Your task to perform on an android device: turn on notifications settings in the gmail app Image 0: 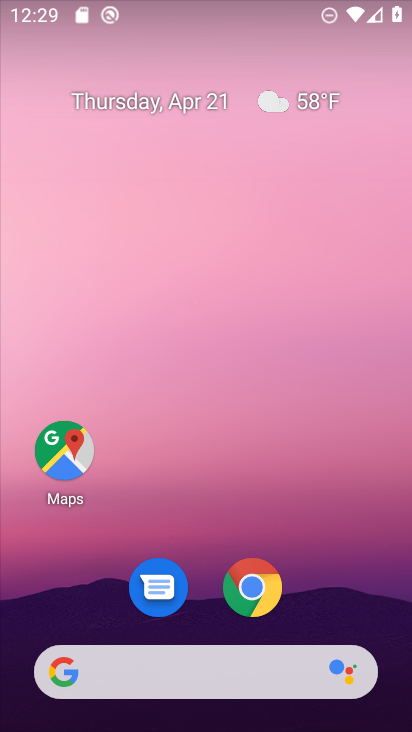
Step 0: click (258, 281)
Your task to perform on an android device: turn on notifications settings in the gmail app Image 1: 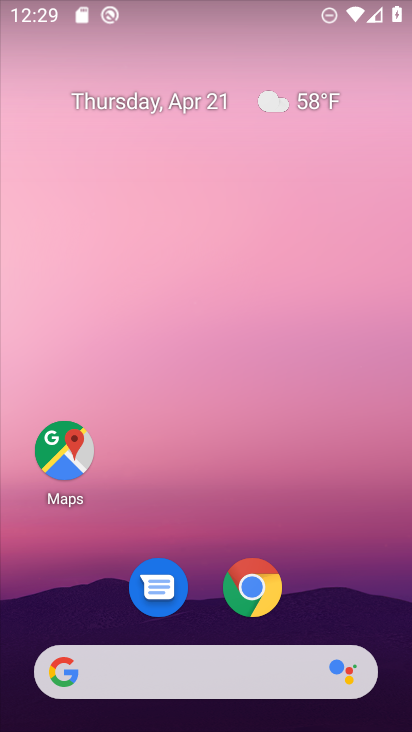
Step 1: drag from (196, 551) to (275, 33)
Your task to perform on an android device: turn on notifications settings in the gmail app Image 2: 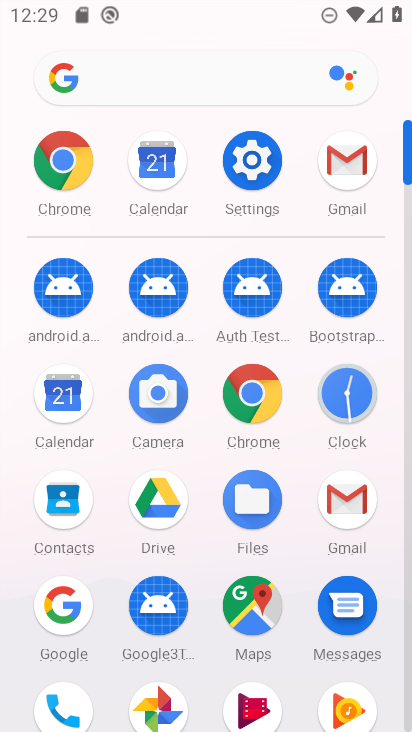
Step 2: click (362, 507)
Your task to perform on an android device: turn on notifications settings in the gmail app Image 3: 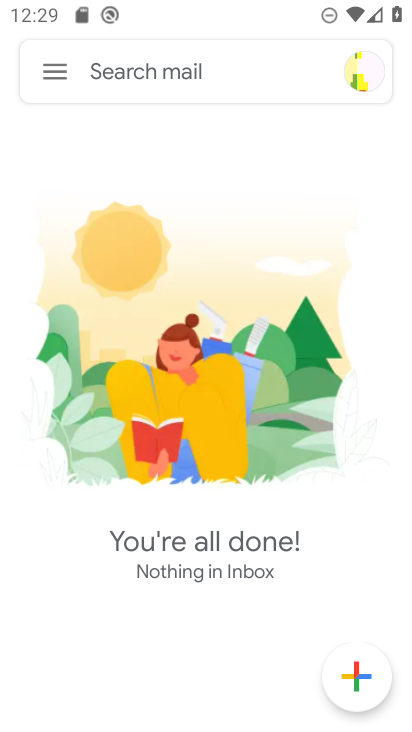
Step 3: click (60, 78)
Your task to perform on an android device: turn on notifications settings in the gmail app Image 4: 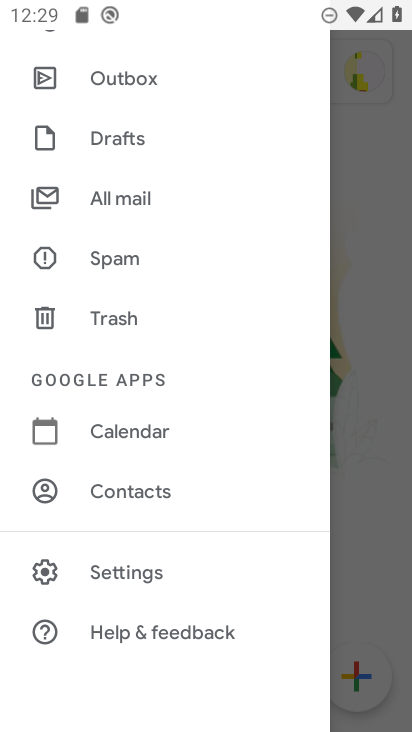
Step 4: click (123, 582)
Your task to perform on an android device: turn on notifications settings in the gmail app Image 5: 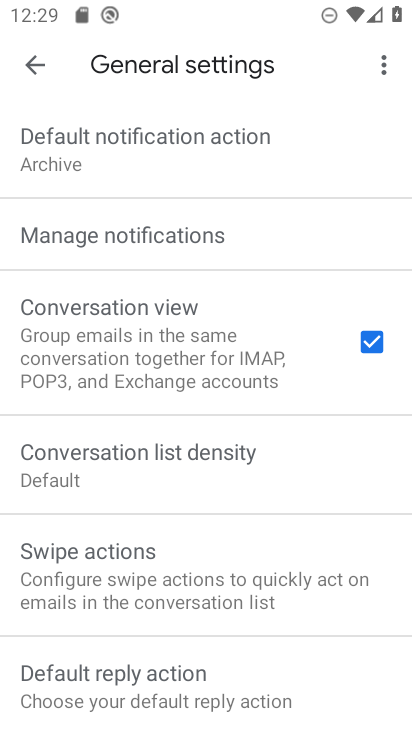
Step 5: click (119, 570)
Your task to perform on an android device: turn on notifications settings in the gmail app Image 6: 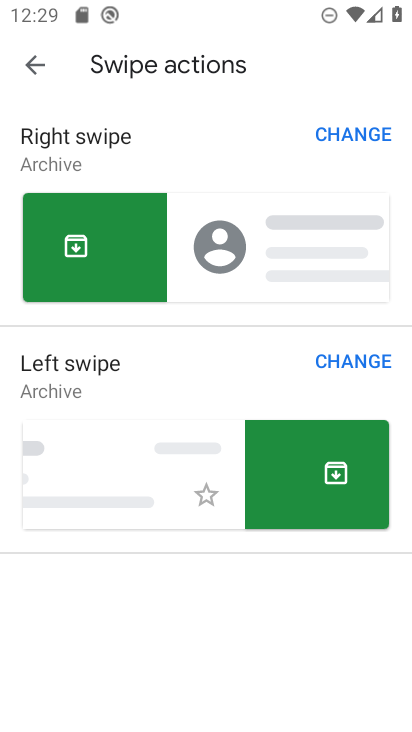
Step 6: click (198, 244)
Your task to perform on an android device: turn on notifications settings in the gmail app Image 7: 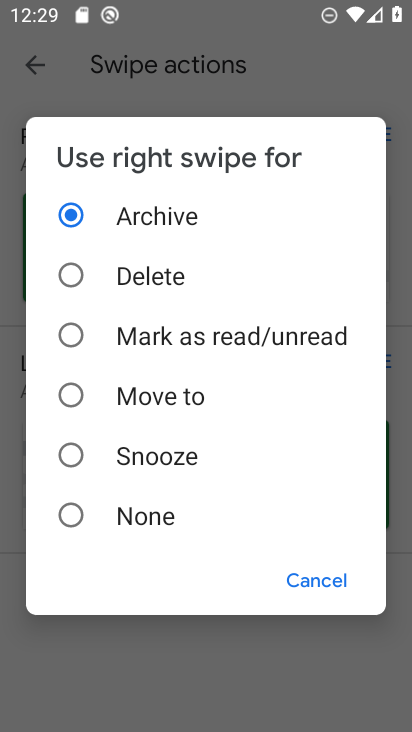
Step 7: click (30, 50)
Your task to perform on an android device: turn on notifications settings in the gmail app Image 8: 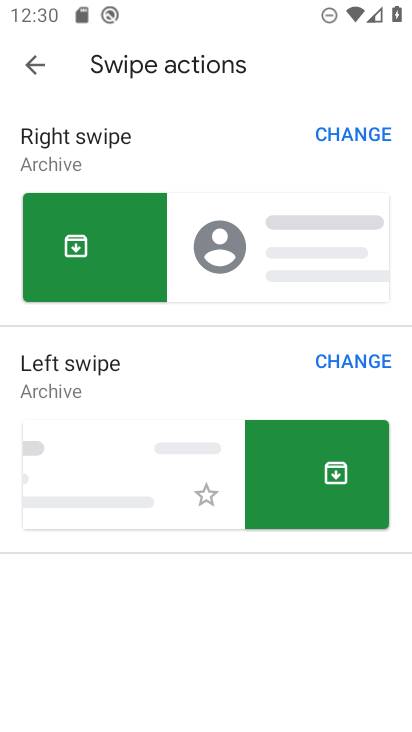
Step 8: click (29, 65)
Your task to perform on an android device: turn on notifications settings in the gmail app Image 9: 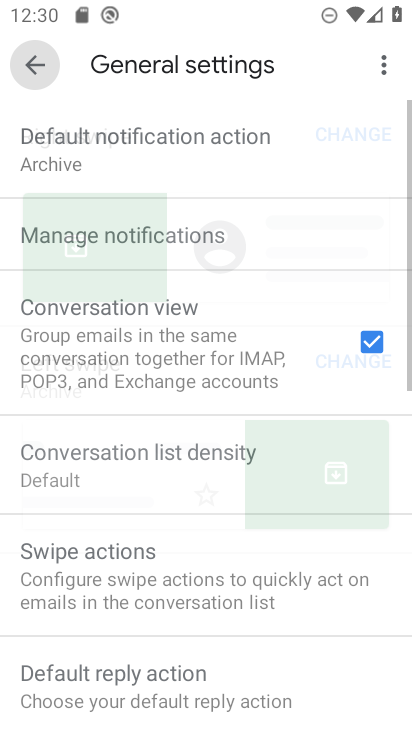
Step 9: click (36, 77)
Your task to perform on an android device: turn on notifications settings in the gmail app Image 10: 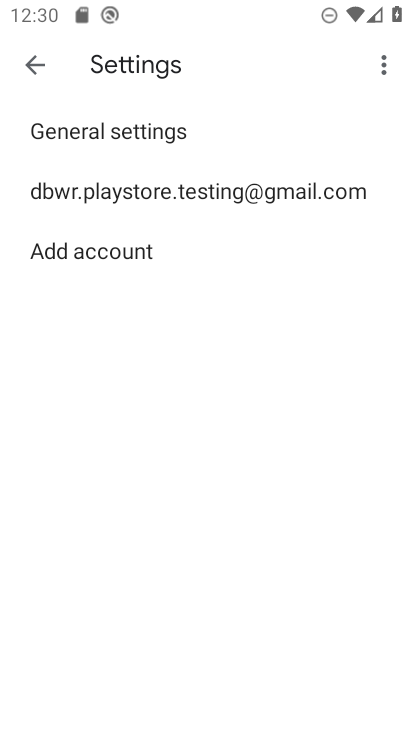
Step 10: click (130, 147)
Your task to perform on an android device: turn on notifications settings in the gmail app Image 11: 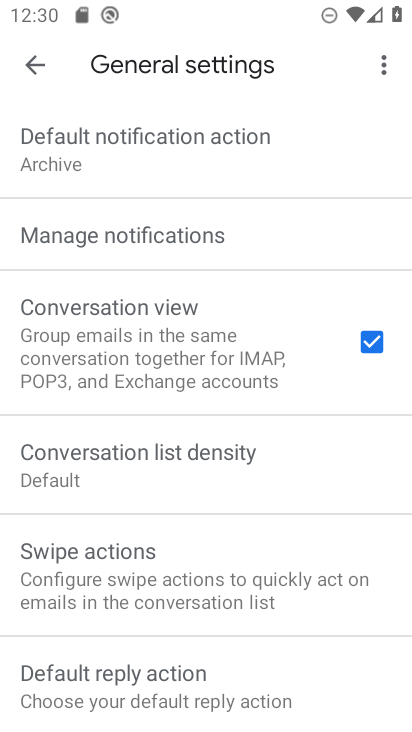
Step 11: click (153, 237)
Your task to perform on an android device: turn on notifications settings in the gmail app Image 12: 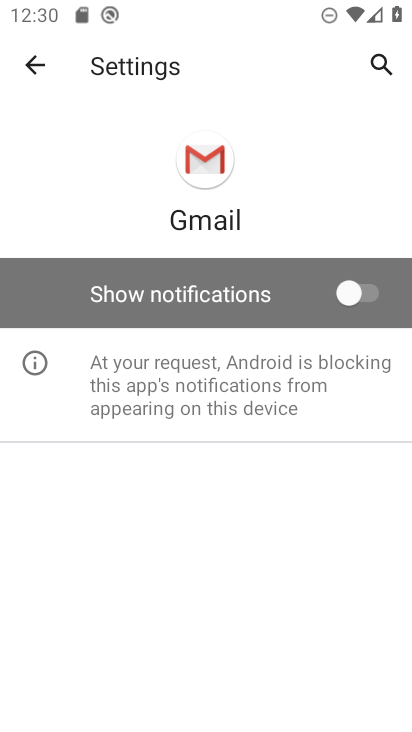
Step 12: click (368, 293)
Your task to perform on an android device: turn on notifications settings in the gmail app Image 13: 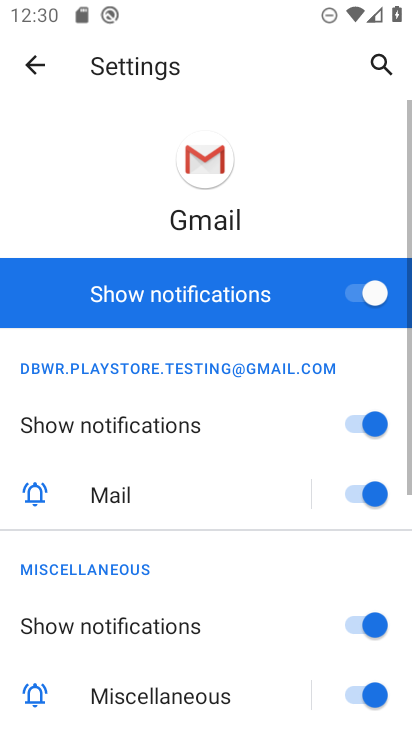
Step 13: task complete